Your task to perform on an android device: Check the weather Image 0: 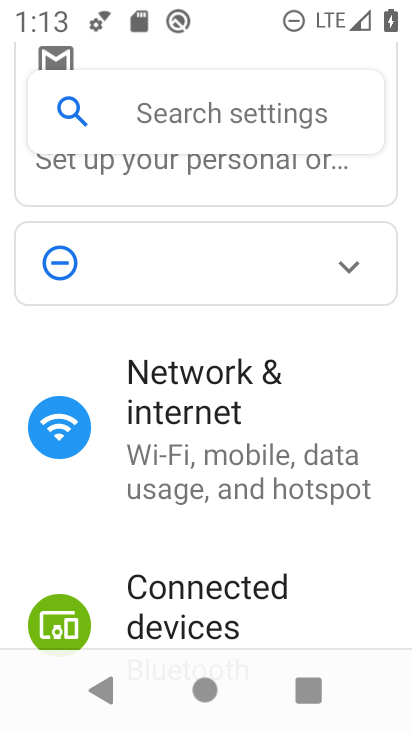
Step 0: press home button
Your task to perform on an android device: Check the weather Image 1: 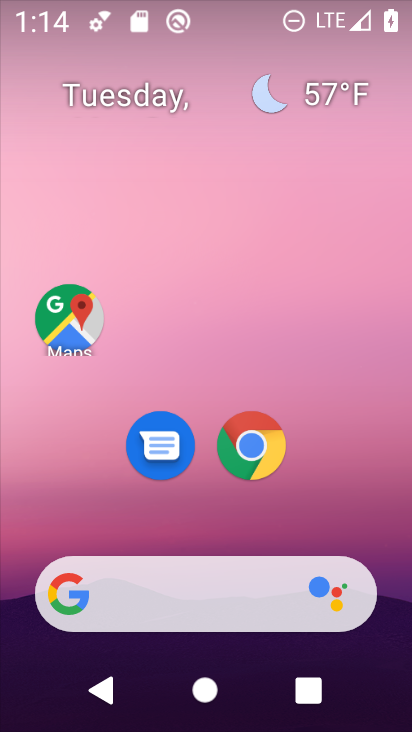
Step 1: click (247, 600)
Your task to perform on an android device: Check the weather Image 2: 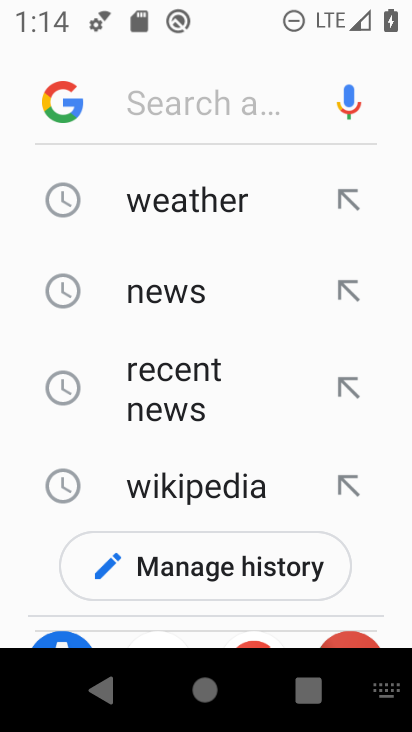
Step 2: click (216, 209)
Your task to perform on an android device: Check the weather Image 3: 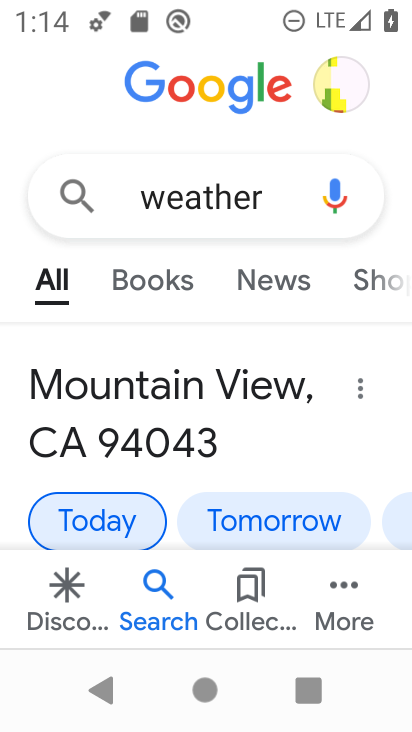
Step 3: task complete